Your task to perform on an android device: turn on improve location accuracy Image 0: 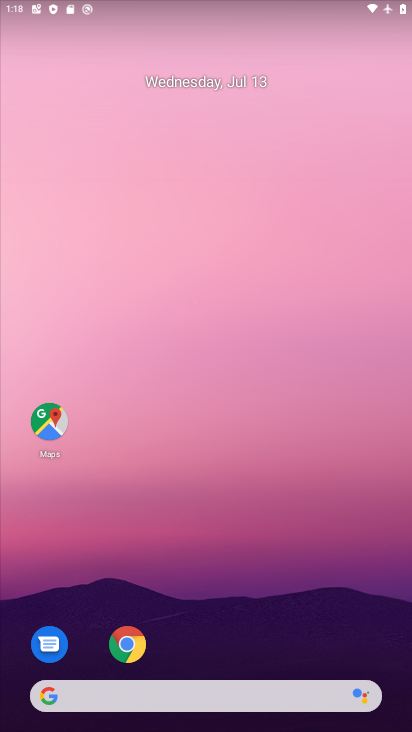
Step 0: drag from (262, 602) to (225, 173)
Your task to perform on an android device: turn on improve location accuracy Image 1: 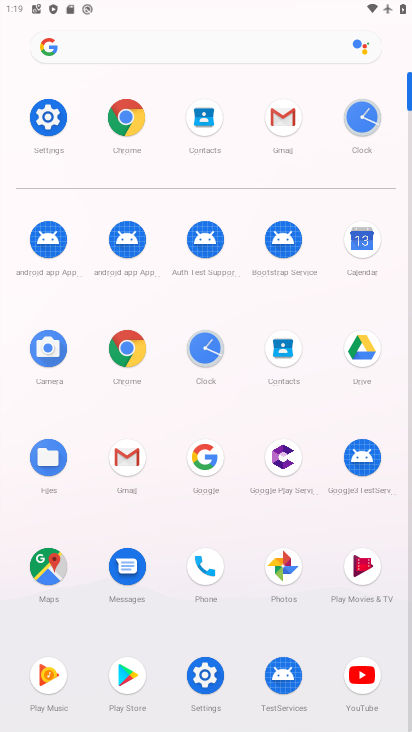
Step 1: click (207, 676)
Your task to perform on an android device: turn on improve location accuracy Image 2: 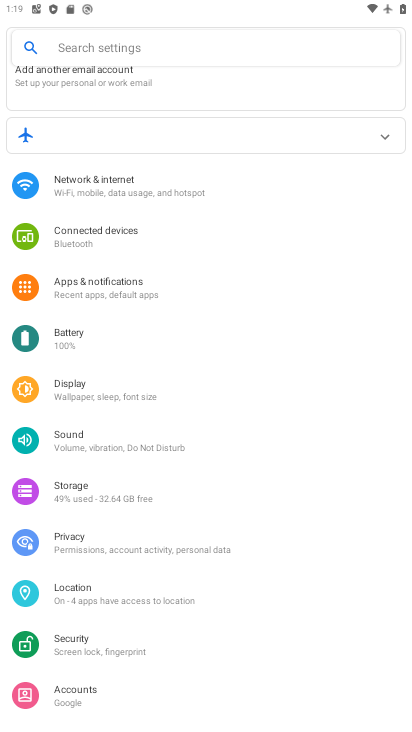
Step 2: click (98, 601)
Your task to perform on an android device: turn on improve location accuracy Image 3: 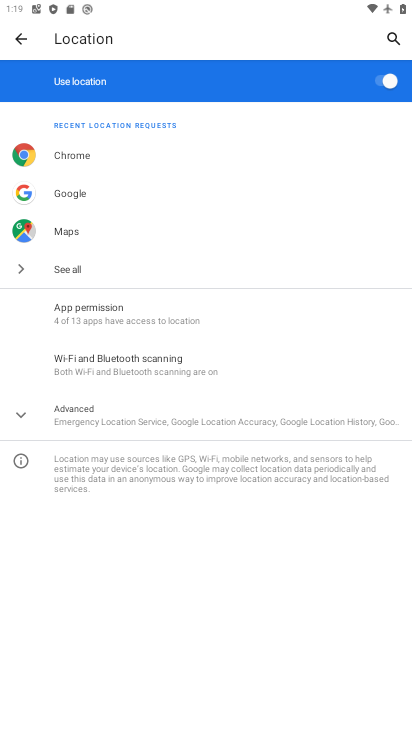
Step 3: click (139, 422)
Your task to perform on an android device: turn on improve location accuracy Image 4: 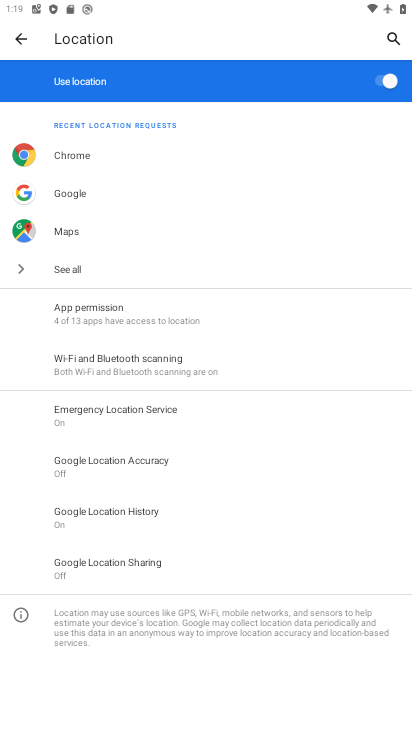
Step 4: click (147, 468)
Your task to perform on an android device: turn on improve location accuracy Image 5: 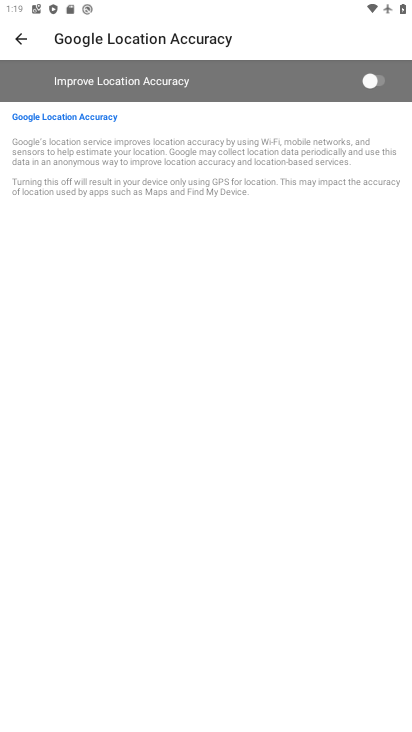
Step 5: click (383, 76)
Your task to perform on an android device: turn on improve location accuracy Image 6: 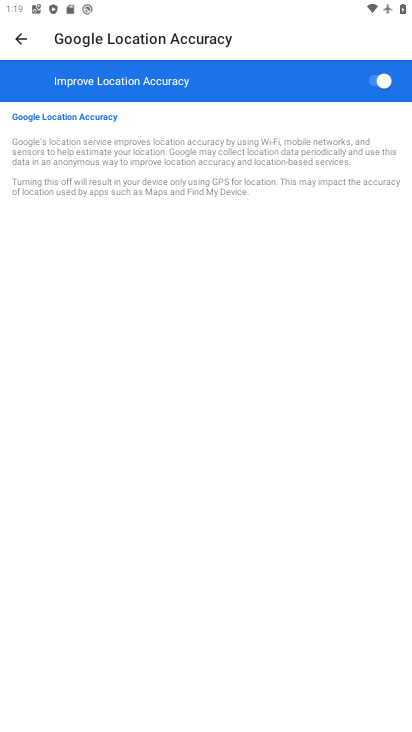
Step 6: task complete